Your task to perform on an android device: turn on bluetooth scan Image 0: 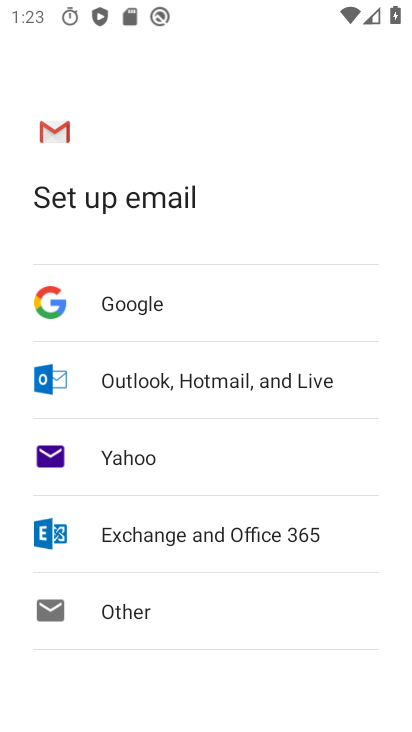
Step 0: press home button
Your task to perform on an android device: turn on bluetooth scan Image 1: 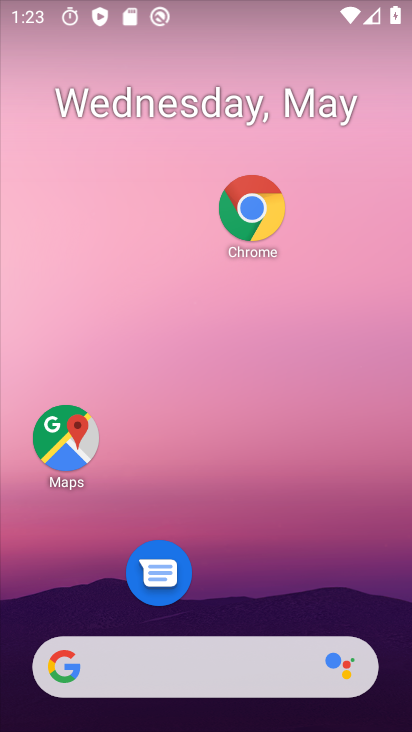
Step 1: drag from (248, 611) to (196, 120)
Your task to perform on an android device: turn on bluetooth scan Image 2: 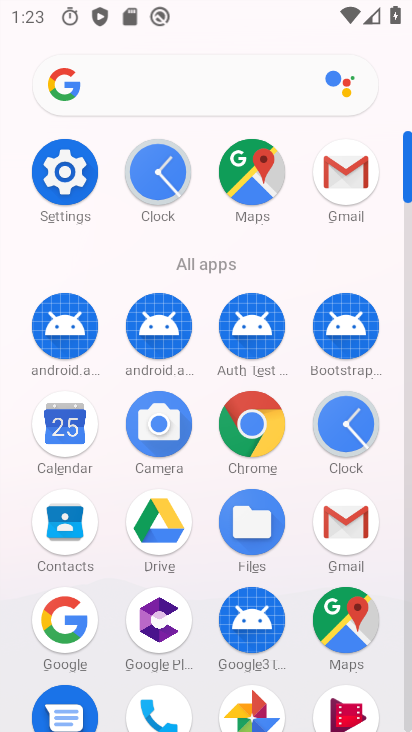
Step 2: click (73, 174)
Your task to perform on an android device: turn on bluetooth scan Image 3: 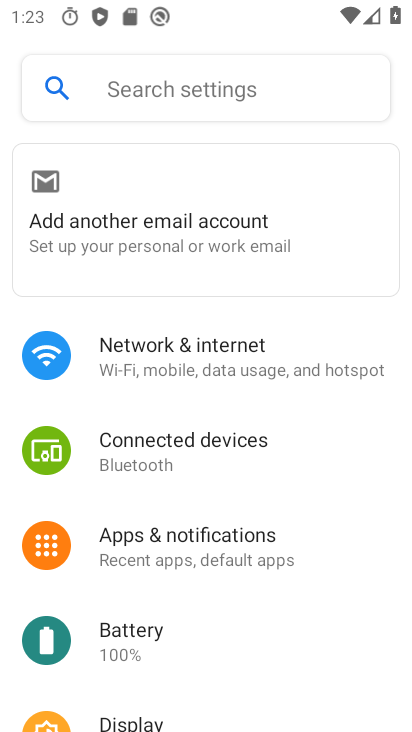
Step 3: drag from (176, 659) to (193, 132)
Your task to perform on an android device: turn on bluetooth scan Image 4: 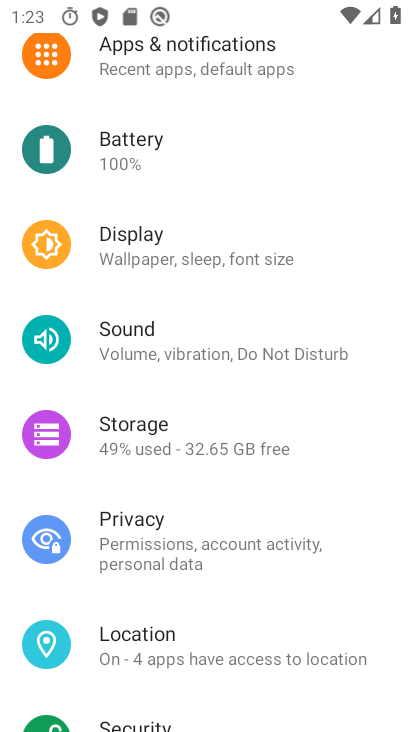
Step 4: click (136, 667)
Your task to perform on an android device: turn on bluetooth scan Image 5: 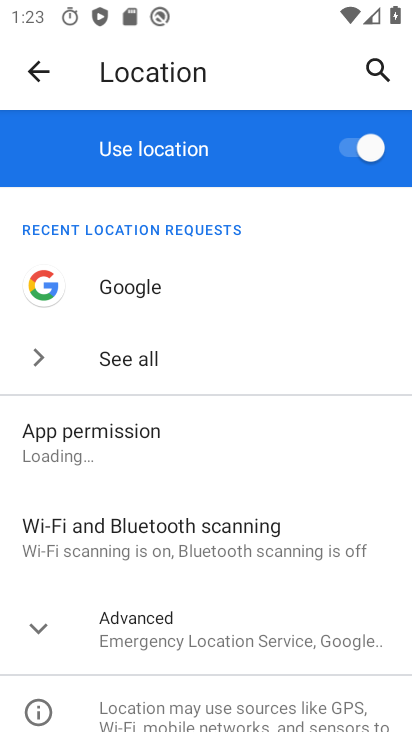
Step 5: click (168, 560)
Your task to perform on an android device: turn on bluetooth scan Image 6: 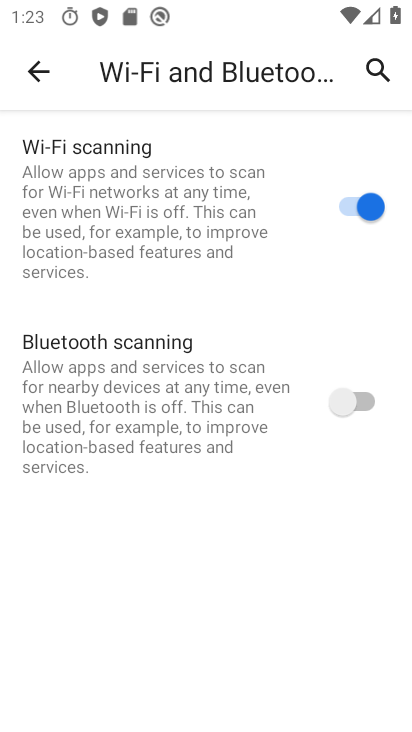
Step 6: click (370, 402)
Your task to perform on an android device: turn on bluetooth scan Image 7: 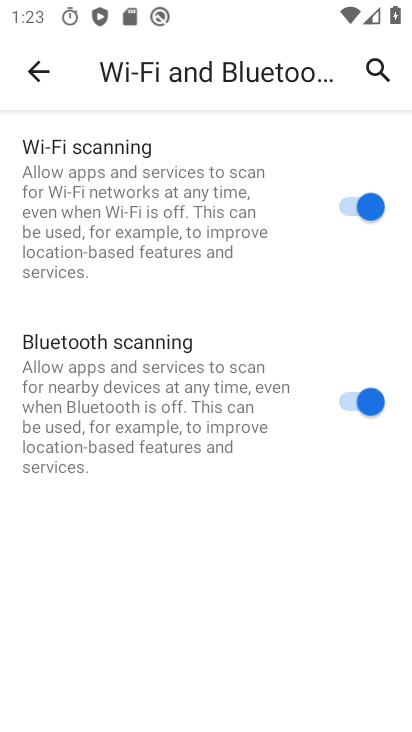
Step 7: task complete